Your task to perform on an android device: check out phone information Image 0: 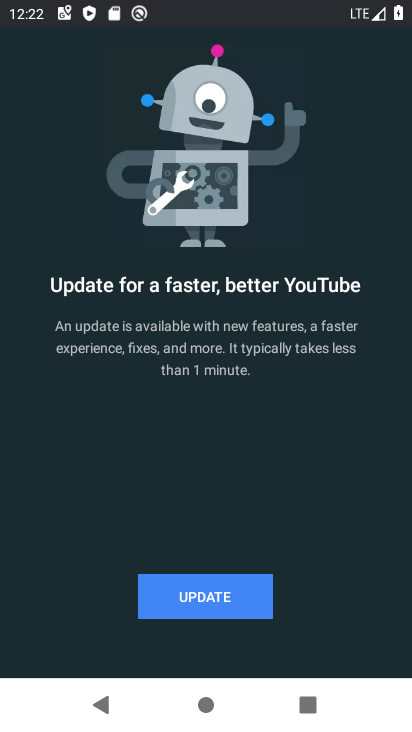
Step 0: drag from (223, 598) to (279, 232)
Your task to perform on an android device: check out phone information Image 1: 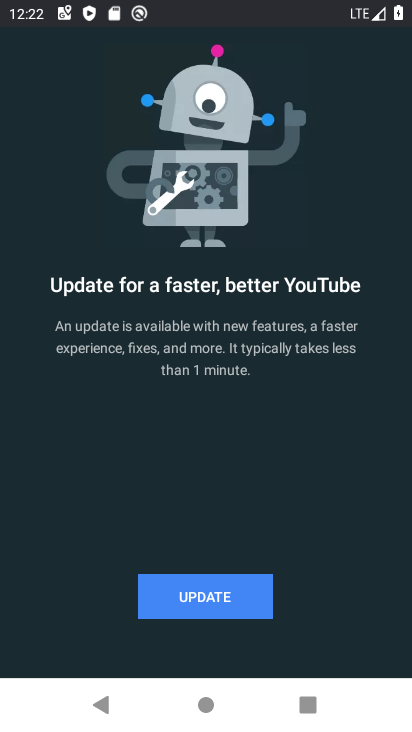
Step 1: press home button
Your task to perform on an android device: check out phone information Image 2: 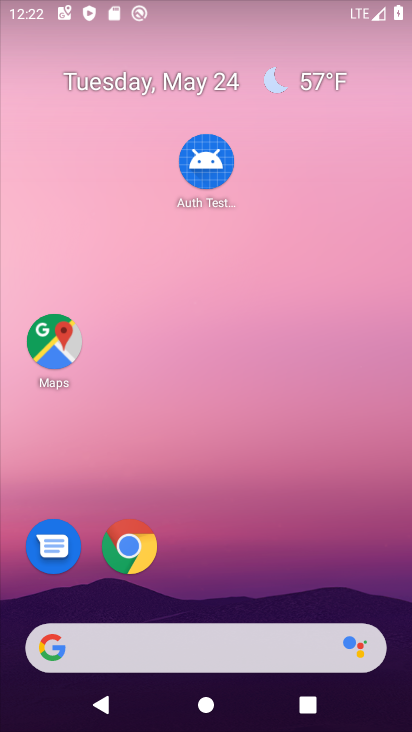
Step 2: drag from (298, 434) to (343, 166)
Your task to perform on an android device: check out phone information Image 3: 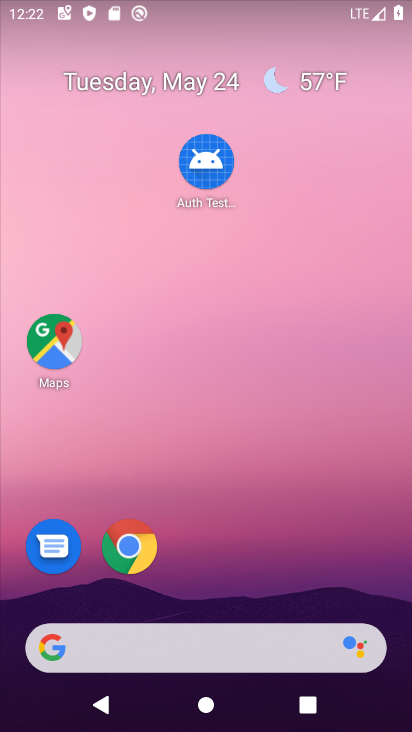
Step 3: drag from (203, 617) to (406, 80)
Your task to perform on an android device: check out phone information Image 4: 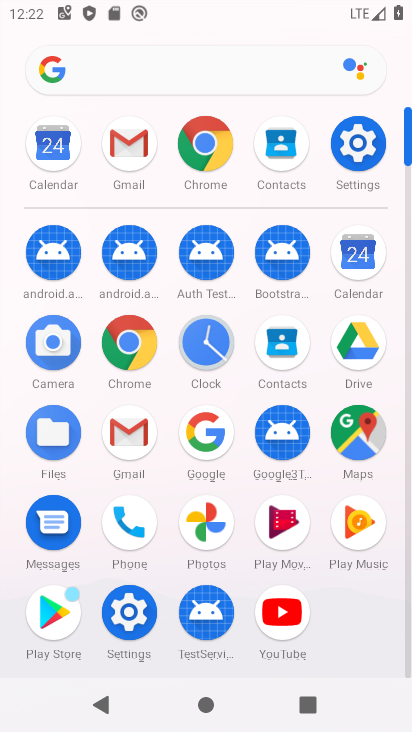
Step 4: click (338, 137)
Your task to perform on an android device: check out phone information Image 5: 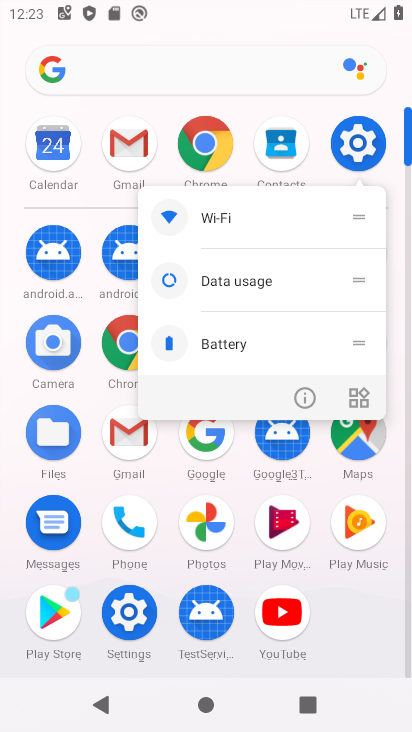
Step 5: click (298, 393)
Your task to perform on an android device: check out phone information Image 6: 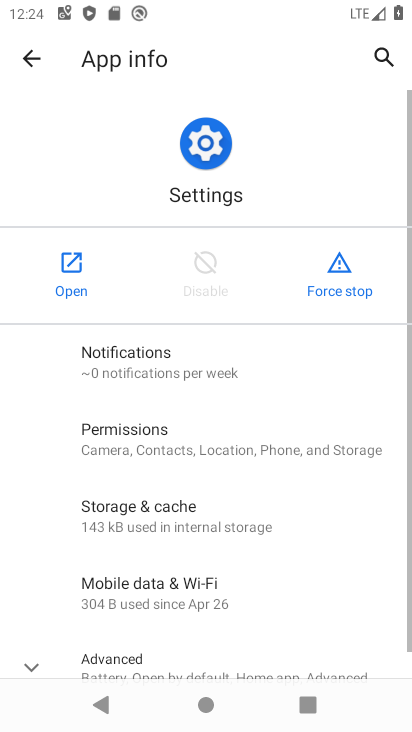
Step 6: drag from (176, 549) to (308, 1)
Your task to perform on an android device: check out phone information Image 7: 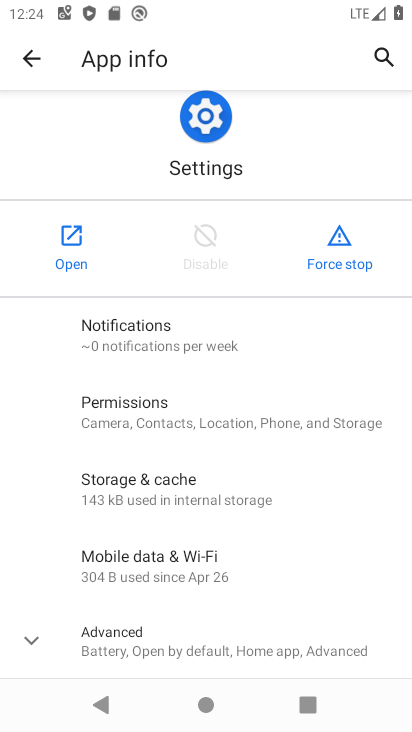
Step 7: click (70, 241)
Your task to perform on an android device: check out phone information Image 8: 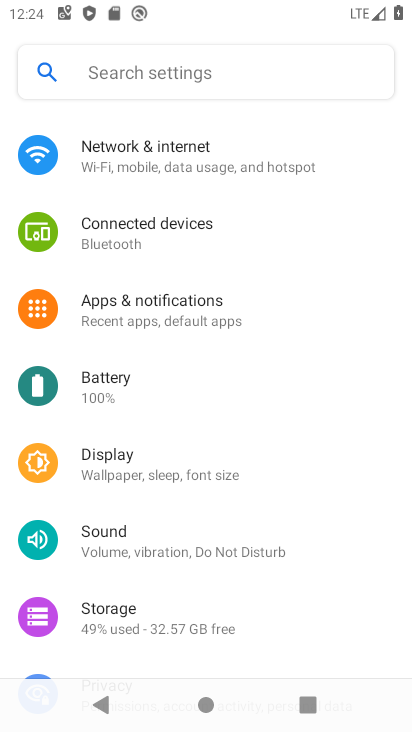
Step 8: drag from (208, 485) to (346, 25)
Your task to perform on an android device: check out phone information Image 9: 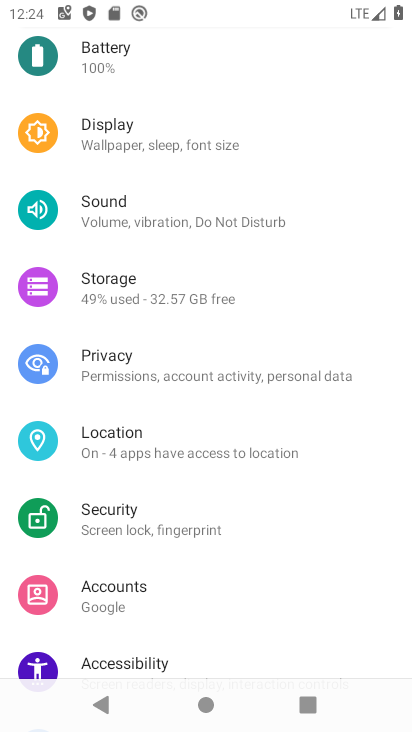
Step 9: drag from (182, 631) to (280, 51)
Your task to perform on an android device: check out phone information Image 10: 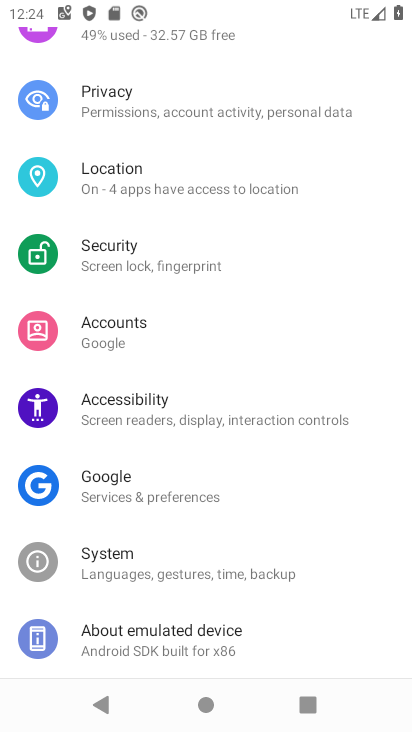
Step 10: click (139, 650)
Your task to perform on an android device: check out phone information Image 11: 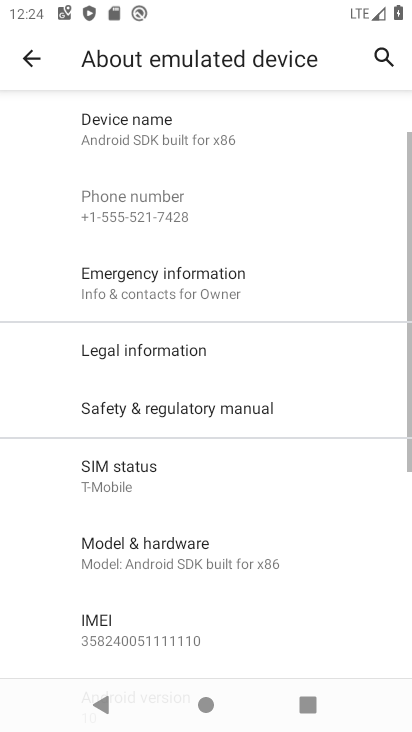
Step 11: task complete